Your task to perform on an android device: open the mobile data screen to see how much data has been used Image 0: 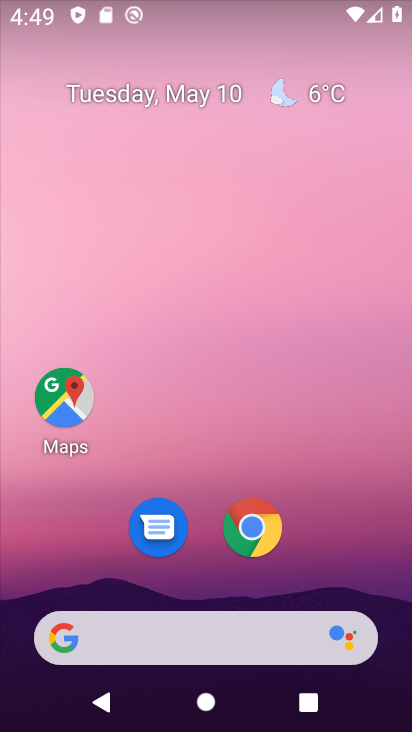
Step 0: drag from (307, 556) to (336, 92)
Your task to perform on an android device: open the mobile data screen to see how much data has been used Image 1: 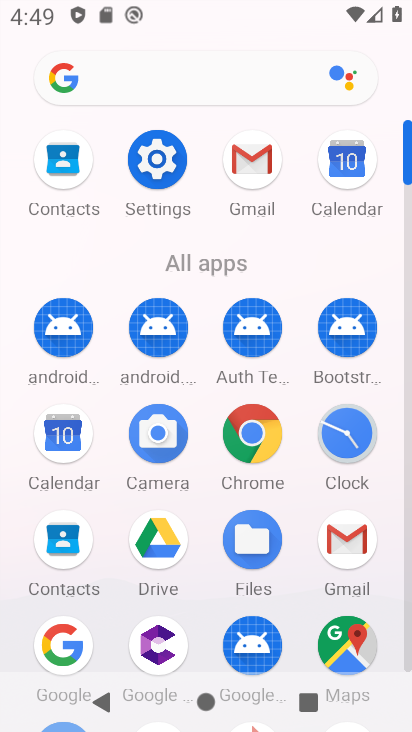
Step 1: click (161, 173)
Your task to perform on an android device: open the mobile data screen to see how much data has been used Image 2: 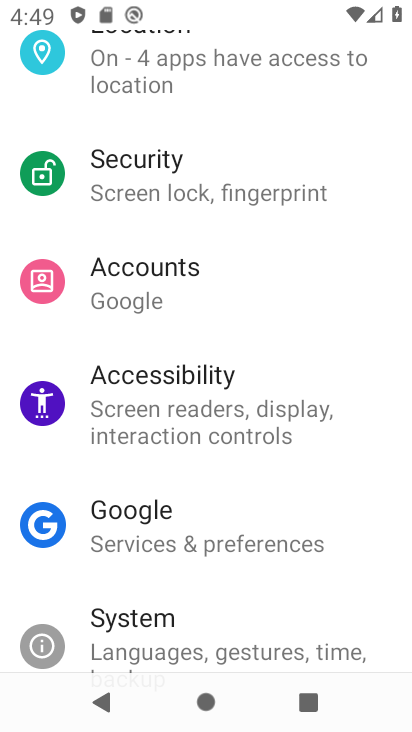
Step 2: drag from (190, 245) to (269, 519)
Your task to perform on an android device: open the mobile data screen to see how much data has been used Image 3: 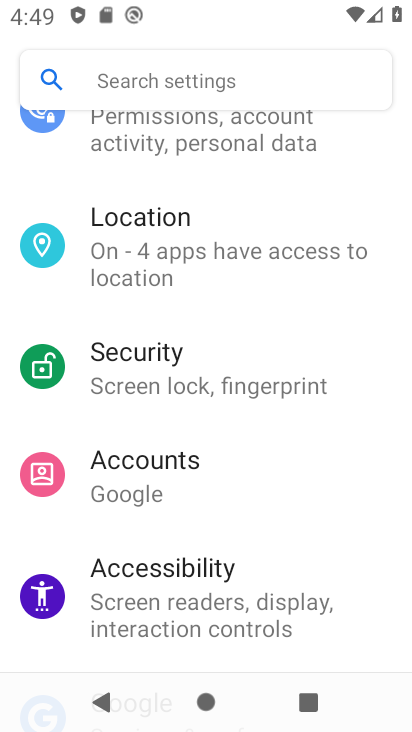
Step 3: drag from (216, 242) to (283, 495)
Your task to perform on an android device: open the mobile data screen to see how much data has been used Image 4: 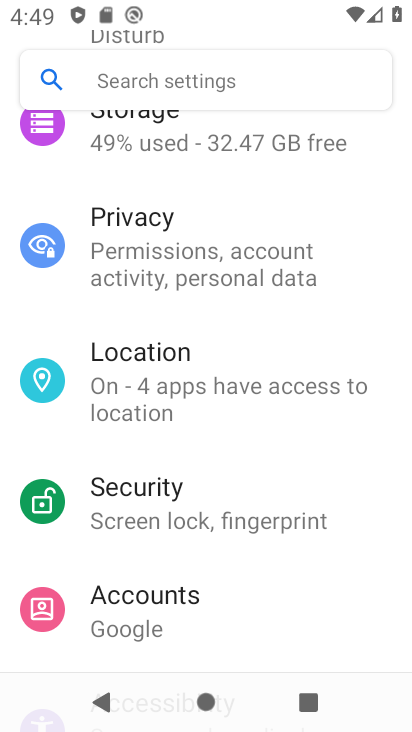
Step 4: drag from (236, 253) to (275, 598)
Your task to perform on an android device: open the mobile data screen to see how much data has been used Image 5: 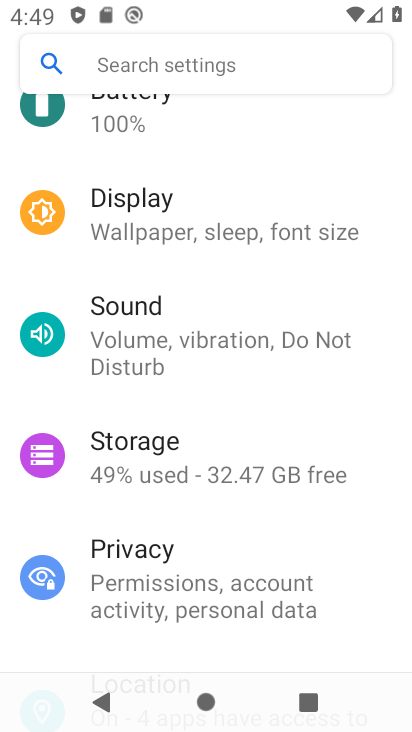
Step 5: drag from (211, 287) to (282, 608)
Your task to perform on an android device: open the mobile data screen to see how much data has been used Image 6: 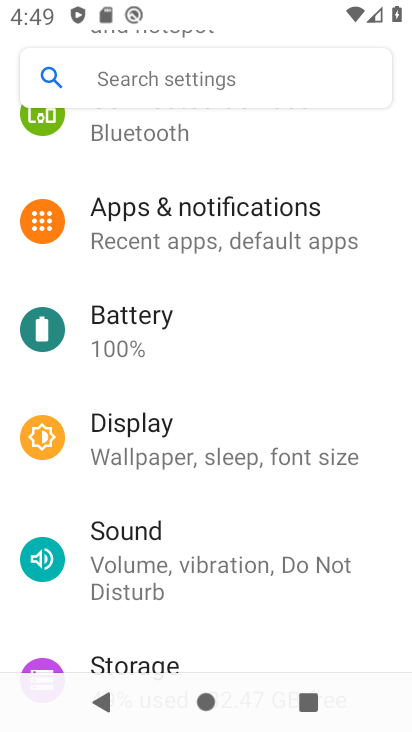
Step 6: drag from (218, 305) to (305, 647)
Your task to perform on an android device: open the mobile data screen to see how much data has been used Image 7: 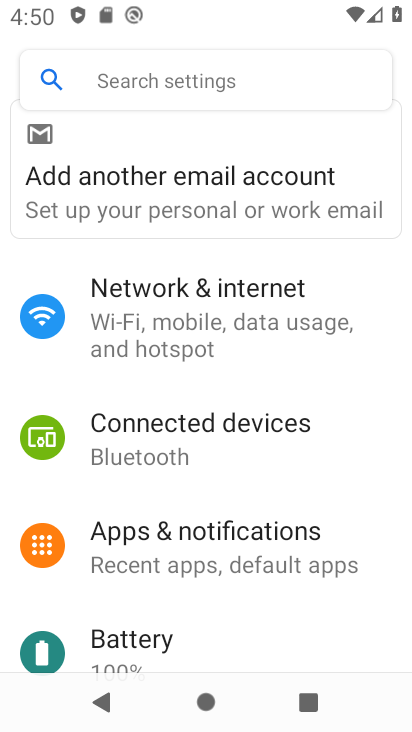
Step 7: click (246, 303)
Your task to perform on an android device: open the mobile data screen to see how much data has been used Image 8: 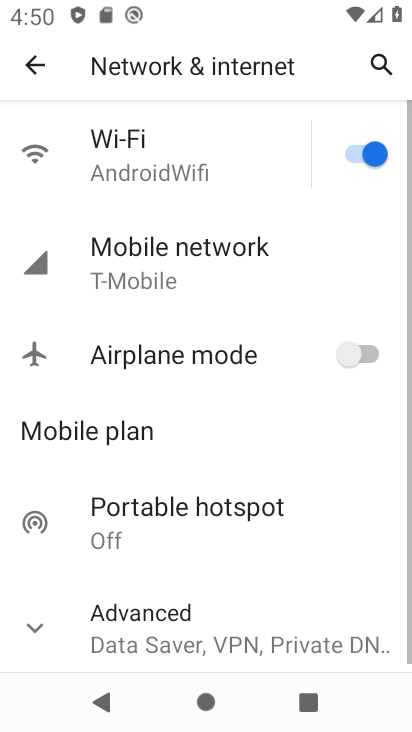
Step 8: click (132, 274)
Your task to perform on an android device: open the mobile data screen to see how much data has been used Image 9: 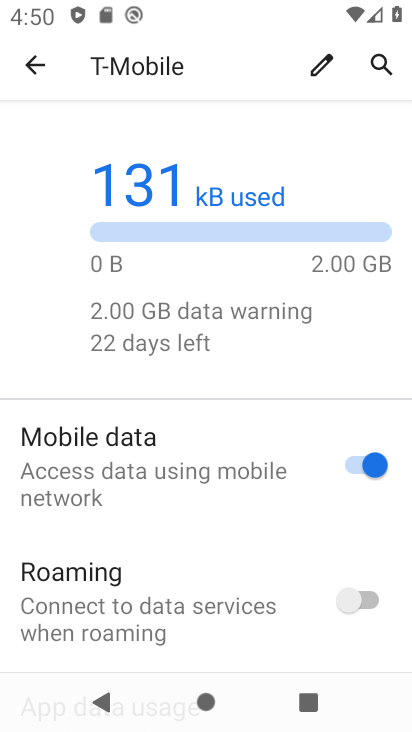
Step 9: drag from (123, 559) to (131, 297)
Your task to perform on an android device: open the mobile data screen to see how much data has been used Image 10: 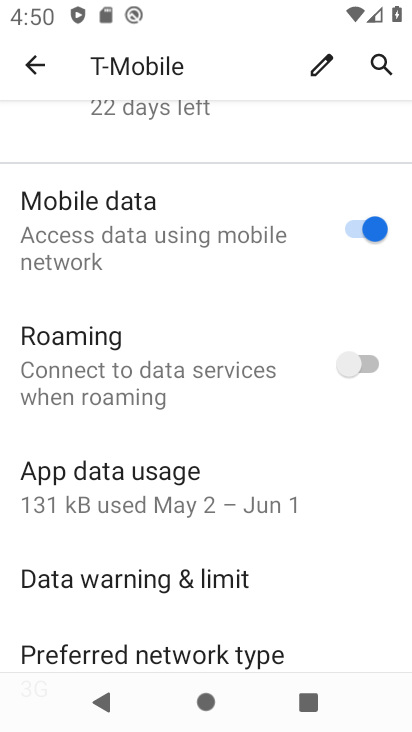
Step 10: click (109, 491)
Your task to perform on an android device: open the mobile data screen to see how much data has been used Image 11: 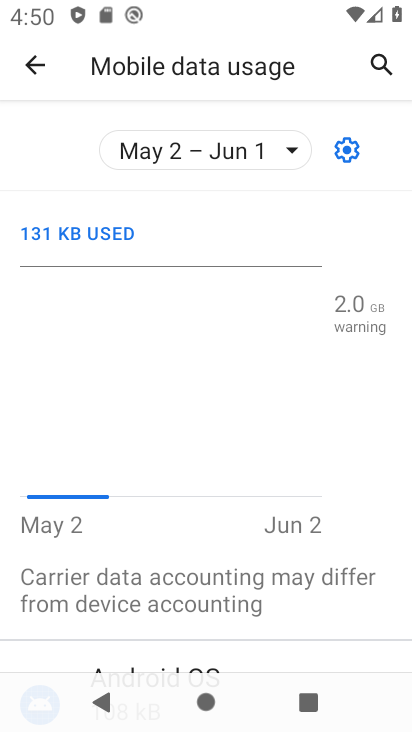
Step 11: task complete